Your task to perform on an android device: open app "Google Chrome" Image 0: 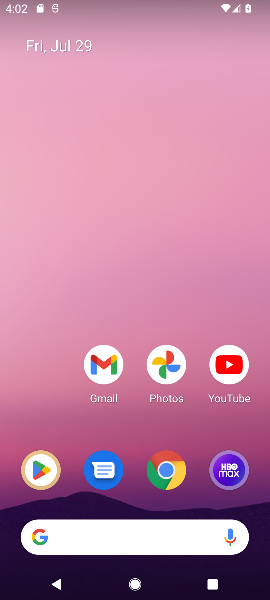
Step 0: task impossible